Your task to perform on an android device: Search for Mexican restaurants on Maps Image 0: 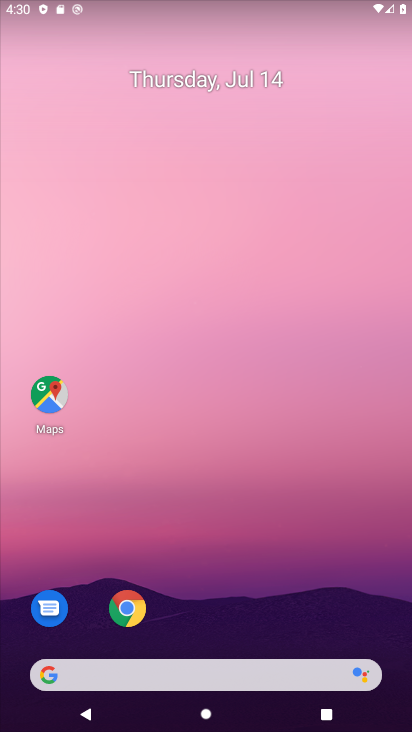
Step 0: click (42, 408)
Your task to perform on an android device: Search for Mexican restaurants on Maps Image 1: 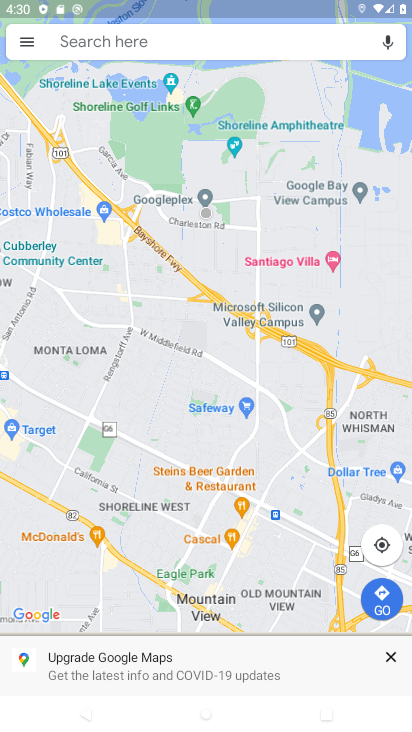
Step 1: click (256, 38)
Your task to perform on an android device: Search for Mexican restaurants on Maps Image 2: 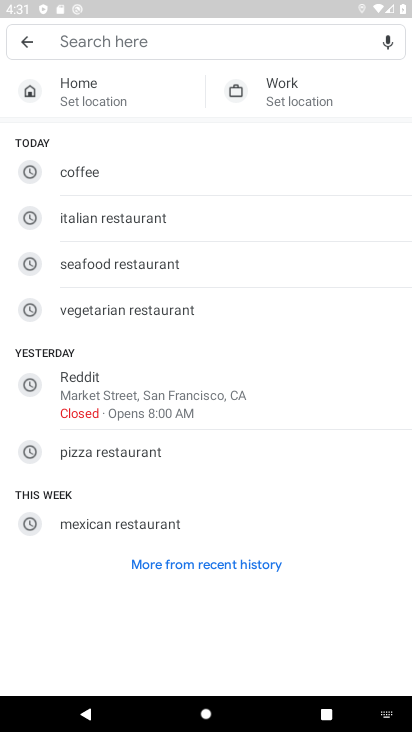
Step 2: type "Mexican restaurants"
Your task to perform on an android device: Search for Mexican restaurants on Maps Image 3: 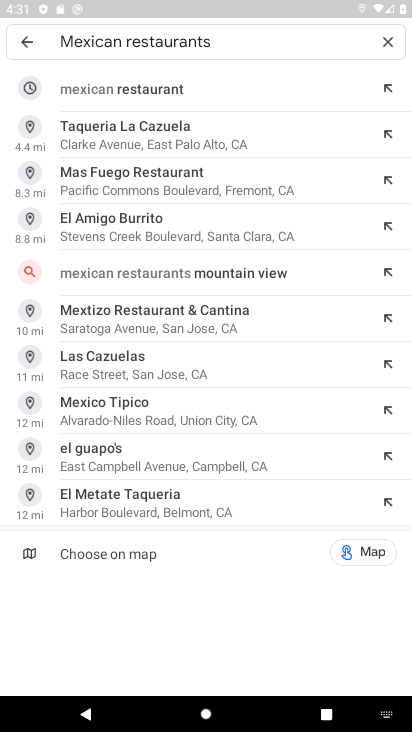
Step 3: click (198, 98)
Your task to perform on an android device: Search for Mexican restaurants on Maps Image 4: 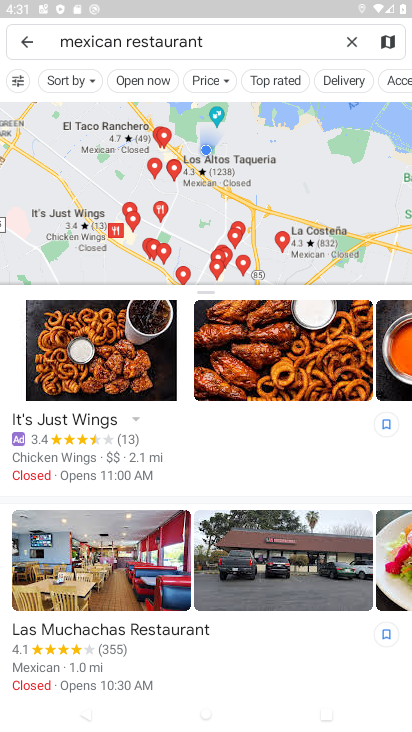
Step 4: task complete